Your task to perform on an android device: Do I have any events today? Image 0: 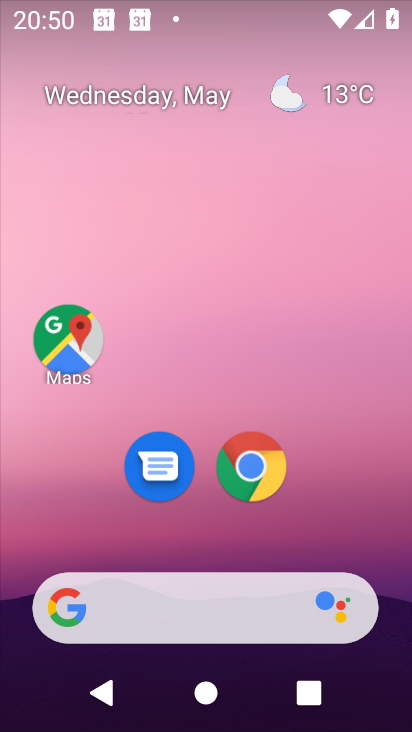
Step 0: press home button
Your task to perform on an android device: Do I have any events today? Image 1: 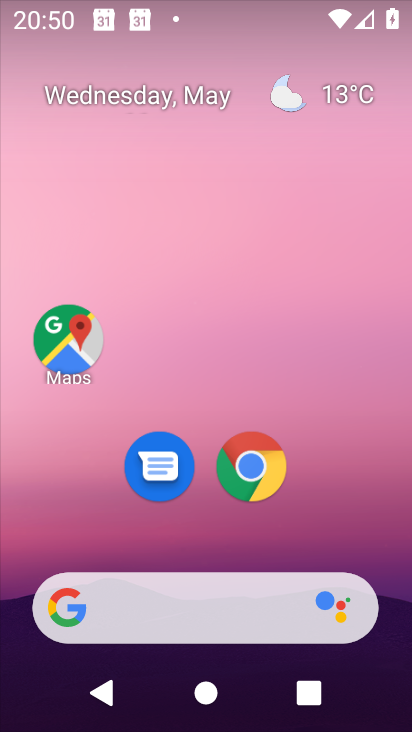
Step 1: drag from (209, 533) to (200, 4)
Your task to perform on an android device: Do I have any events today? Image 2: 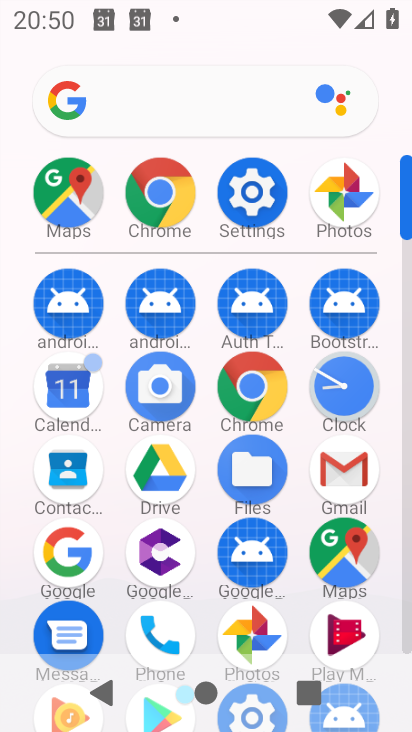
Step 2: click (70, 383)
Your task to perform on an android device: Do I have any events today? Image 3: 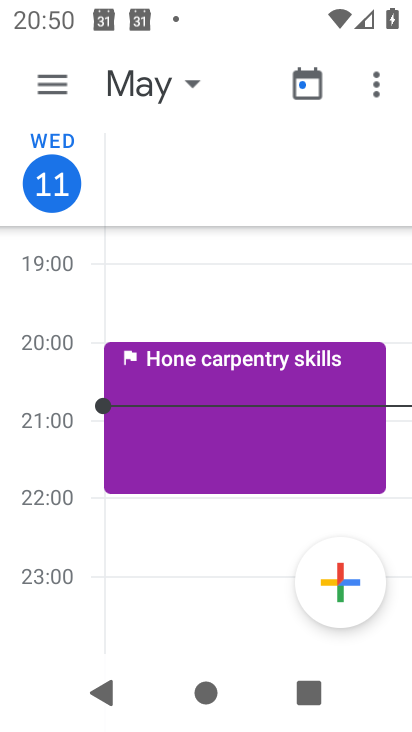
Step 3: click (47, 78)
Your task to perform on an android device: Do I have any events today? Image 4: 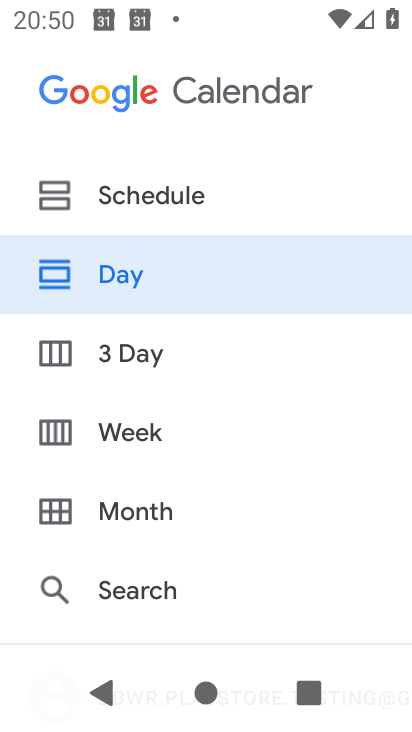
Step 4: click (84, 277)
Your task to perform on an android device: Do I have any events today? Image 5: 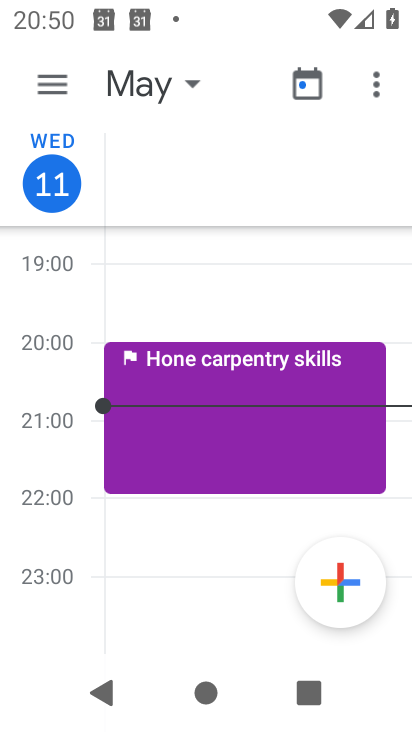
Step 5: task complete